Your task to perform on an android device: Go to notification settings Image 0: 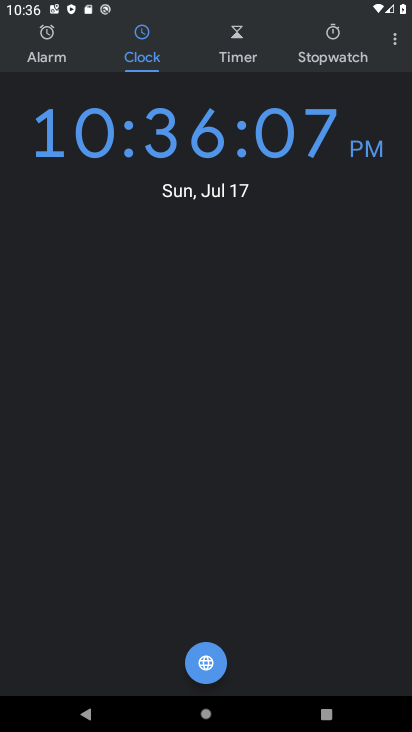
Step 0: press home button
Your task to perform on an android device: Go to notification settings Image 1: 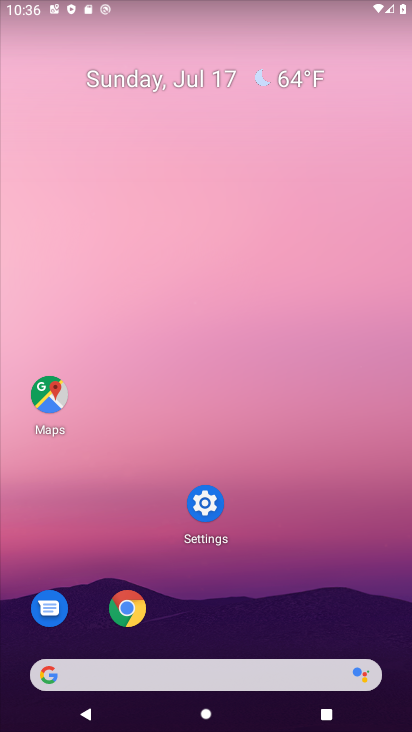
Step 1: click (187, 495)
Your task to perform on an android device: Go to notification settings Image 2: 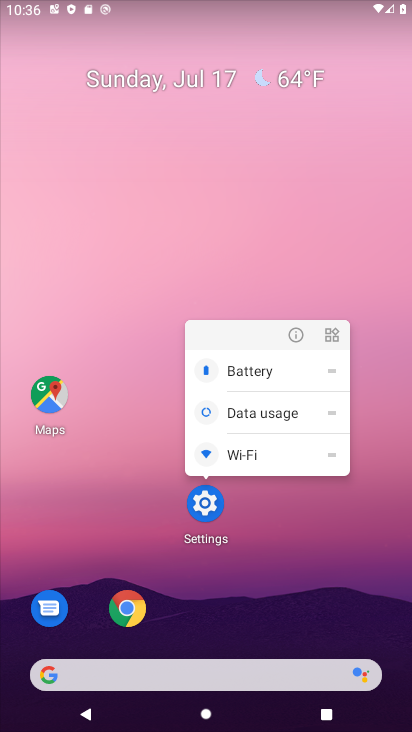
Step 2: click (131, 335)
Your task to perform on an android device: Go to notification settings Image 3: 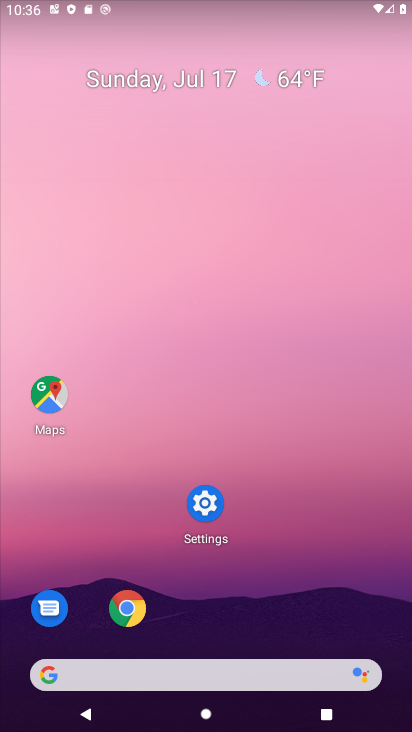
Step 3: click (198, 503)
Your task to perform on an android device: Go to notification settings Image 4: 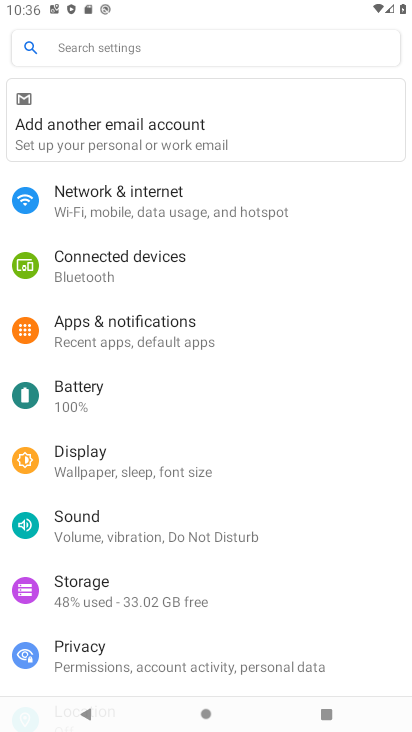
Step 4: click (148, 331)
Your task to perform on an android device: Go to notification settings Image 5: 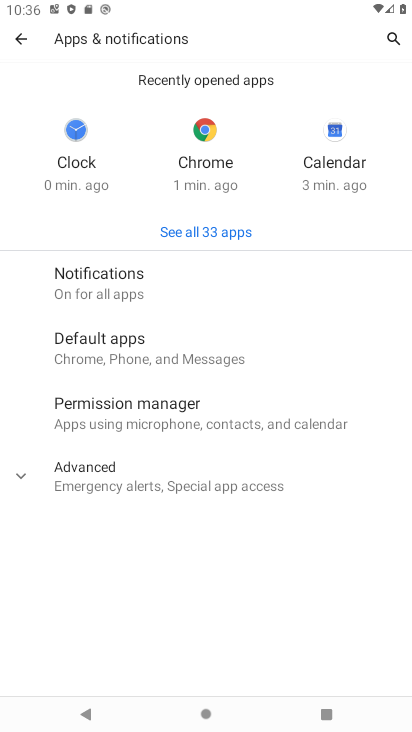
Step 5: click (99, 276)
Your task to perform on an android device: Go to notification settings Image 6: 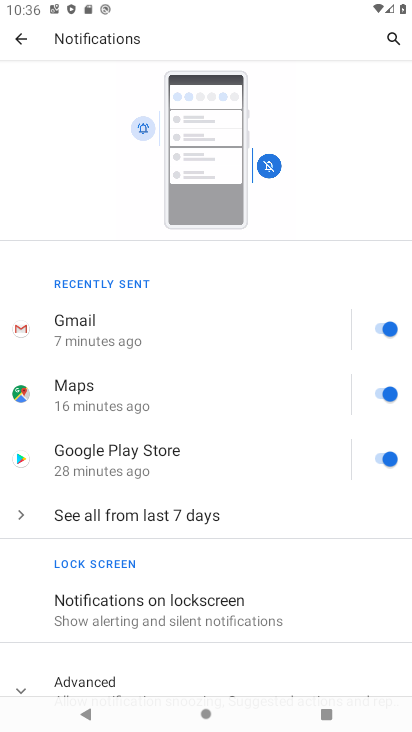
Step 6: click (151, 605)
Your task to perform on an android device: Go to notification settings Image 7: 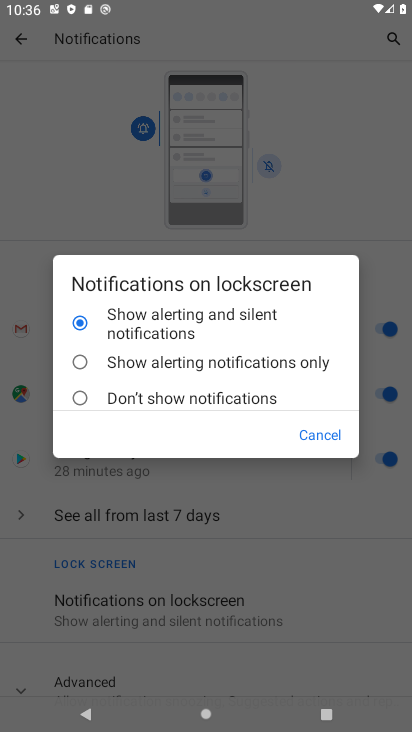
Step 7: click (305, 439)
Your task to perform on an android device: Go to notification settings Image 8: 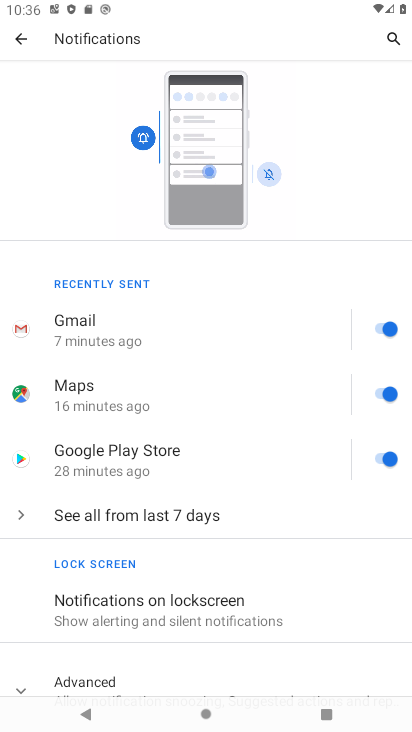
Step 8: drag from (195, 630) to (168, 199)
Your task to perform on an android device: Go to notification settings Image 9: 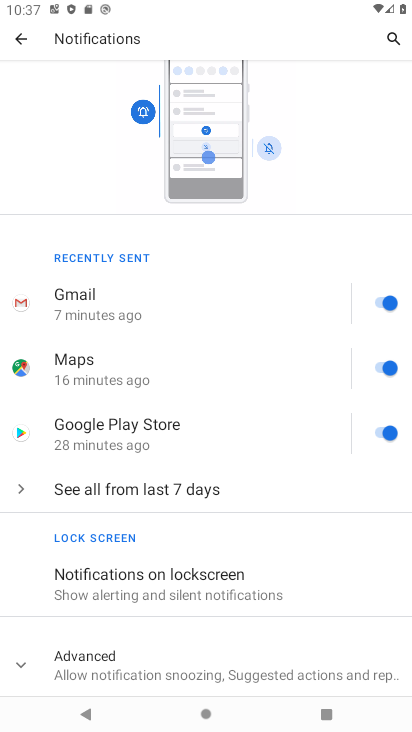
Step 9: click (22, 657)
Your task to perform on an android device: Go to notification settings Image 10: 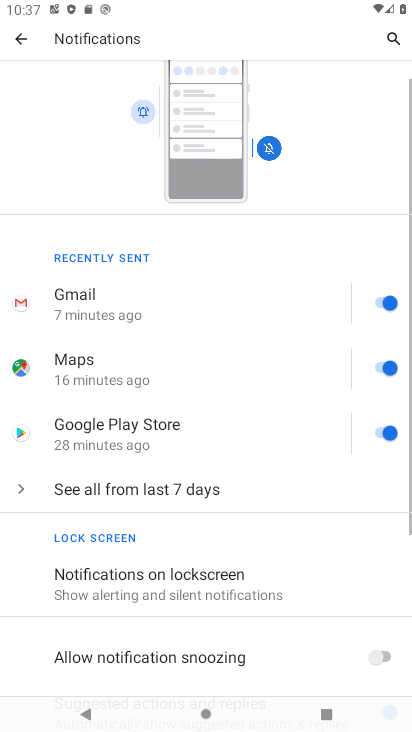
Step 10: task complete